Your task to perform on an android device: open the mobile data screen to see how much data has been used Image 0: 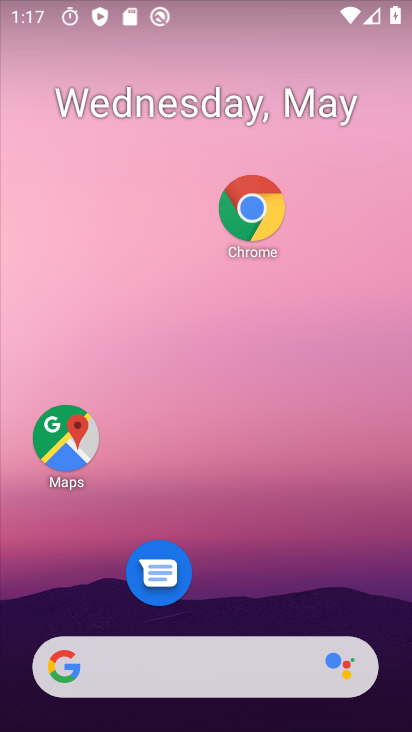
Step 0: drag from (208, 613) to (188, 108)
Your task to perform on an android device: open the mobile data screen to see how much data has been used Image 1: 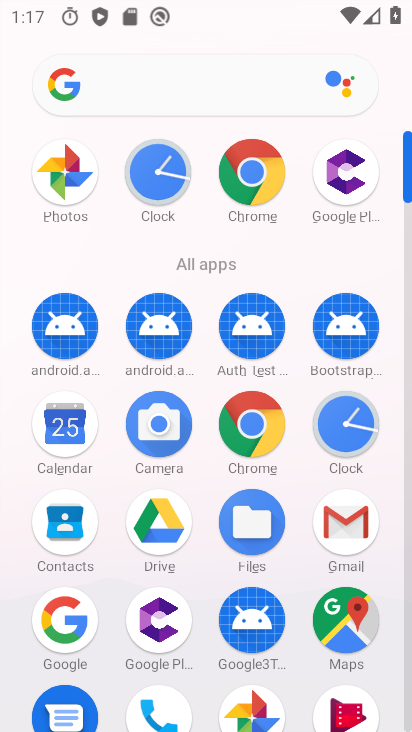
Step 1: drag from (231, 8) to (143, 577)
Your task to perform on an android device: open the mobile data screen to see how much data has been used Image 2: 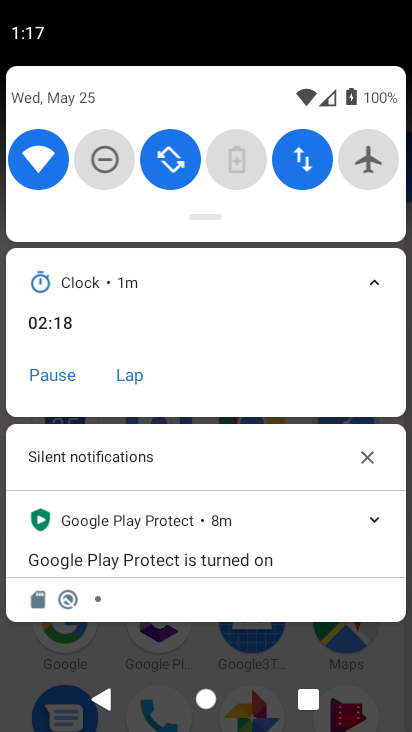
Step 2: click (306, 160)
Your task to perform on an android device: open the mobile data screen to see how much data has been used Image 3: 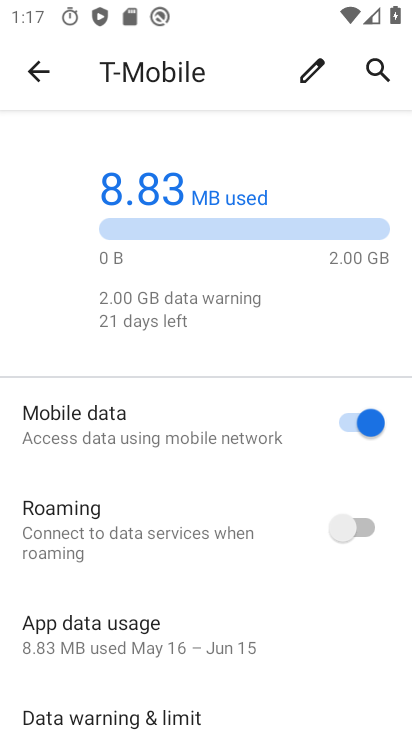
Step 3: task complete